Your task to perform on an android device: open app "Messenger Lite" (install if not already installed) Image 0: 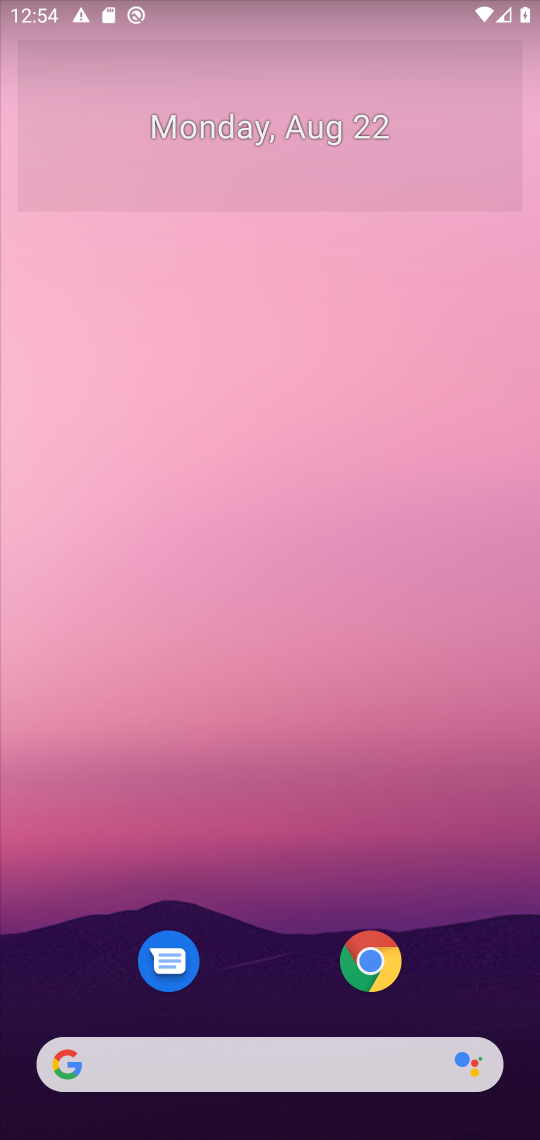
Step 0: press home button
Your task to perform on an android device: open app "Messenger Lite" (install if not already installed) Image 1: 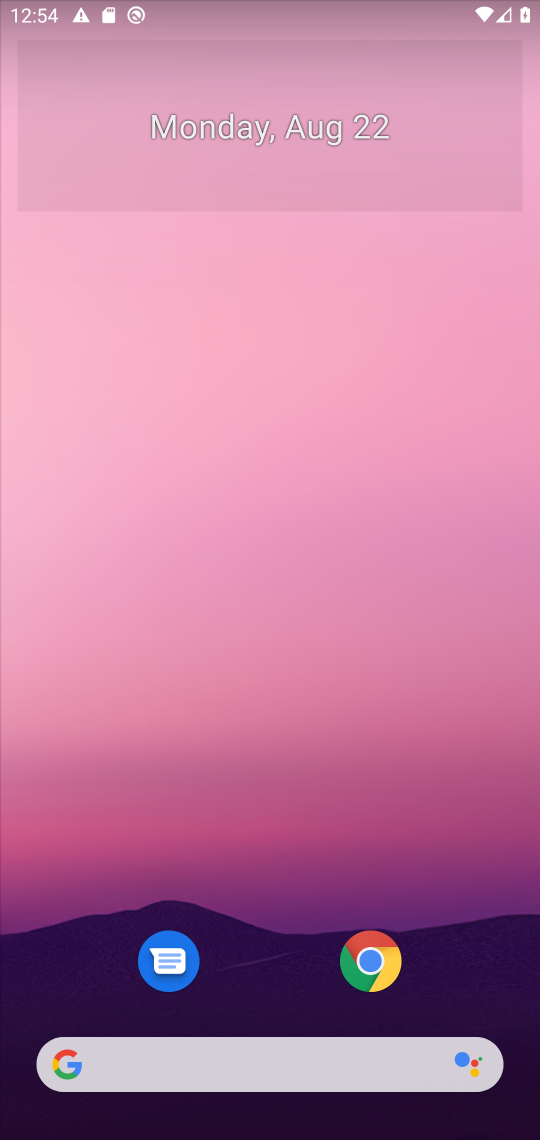
Step 1: drag from (475, 972) to (508, 166)
Your task to perform on an android device: open app "Messenger Lite" (install if not already installed) Image 2: 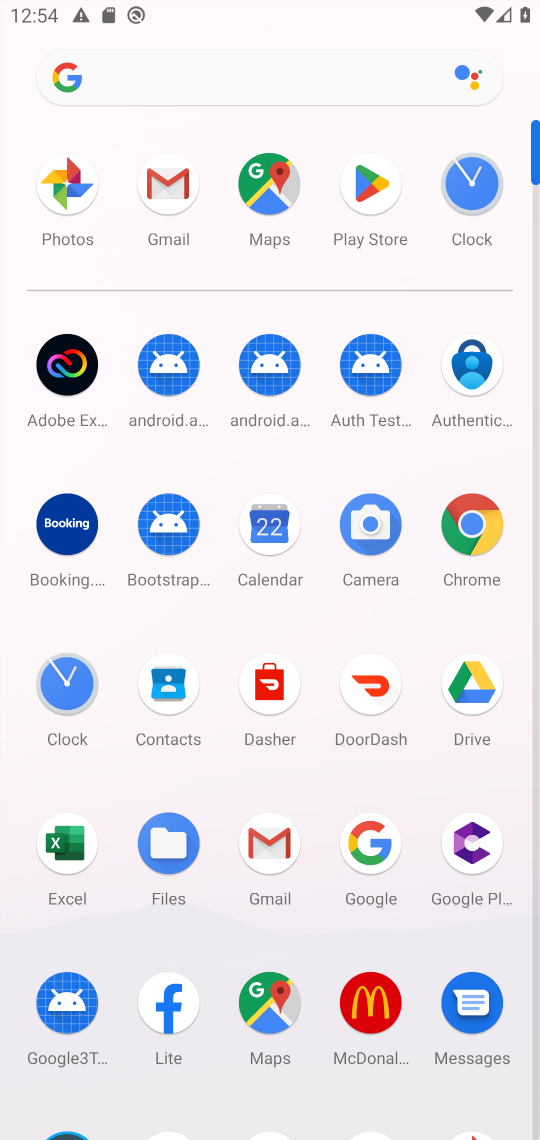
Step 2: click (376, 183)
Your task to perform on an android device: open app "Messenger Lite" (install if not already installed) Image 3: 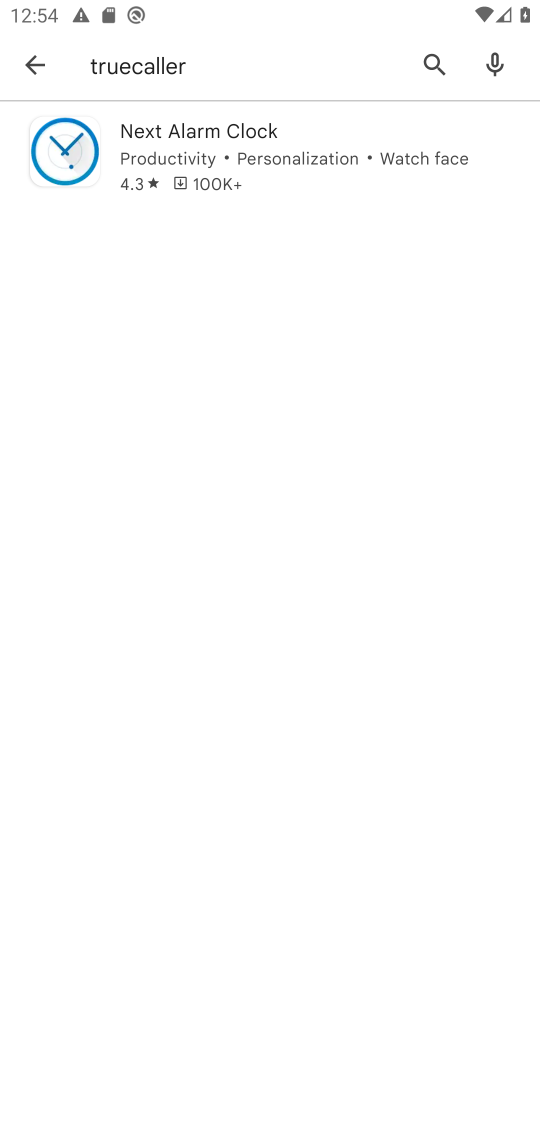
Step 3: press back button
Your task to perform on an android device: open app "Messenger Lite" (install if not already installed) Image 4: 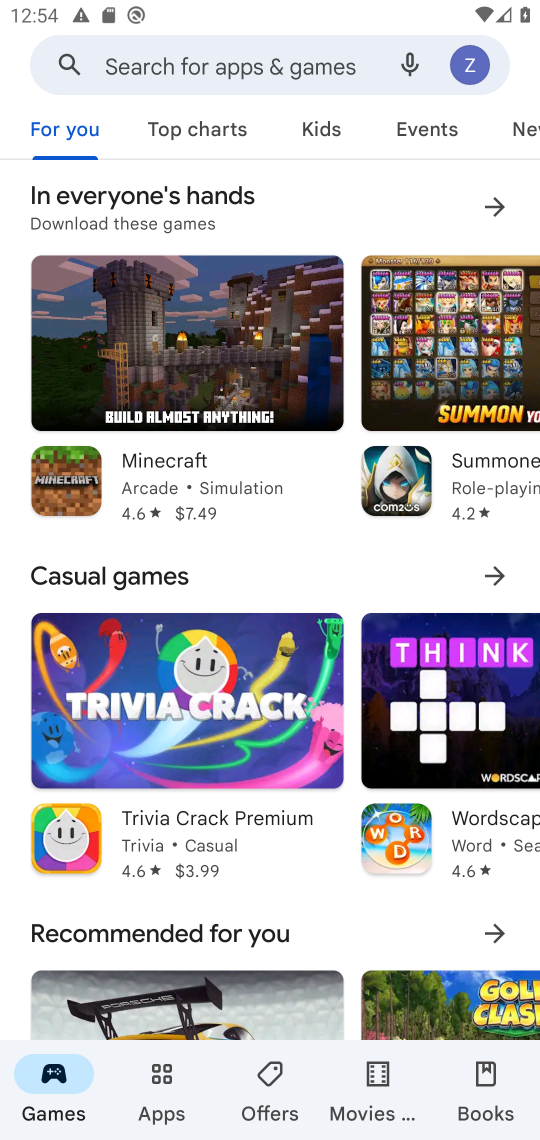
Step 4: click (312, 55)
Your task to perform on an android device: open app "Messenger Lite" (install if not already installed) Image 5: 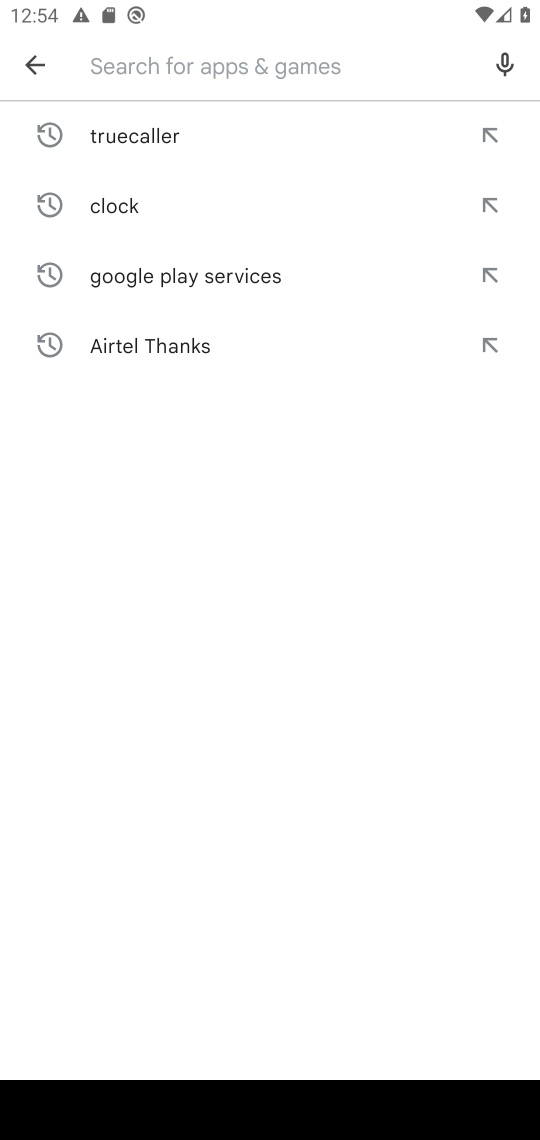
Step 5: press enter
Your task to perform on an android device: open app "Messenger Lite" (install if not already installed) Image 6: 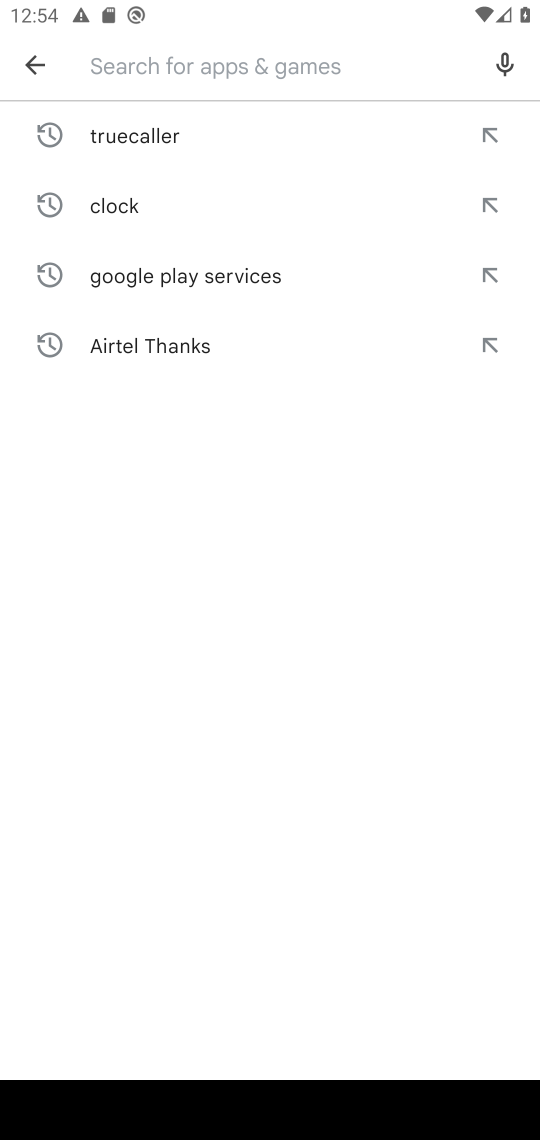
Step 6: type "messenger lite"
Your task to perform on an android device: open app "Messenger Lite" (install if not already installed) Image 7: 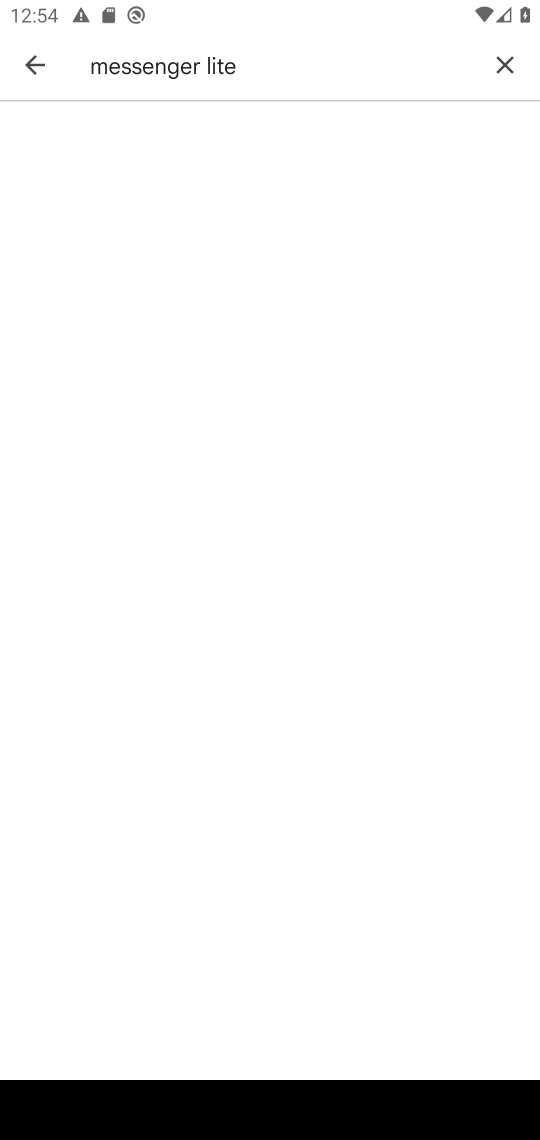
Step 7: task complete